Your task to perform on an android device: change alarm snooze length Image 0: 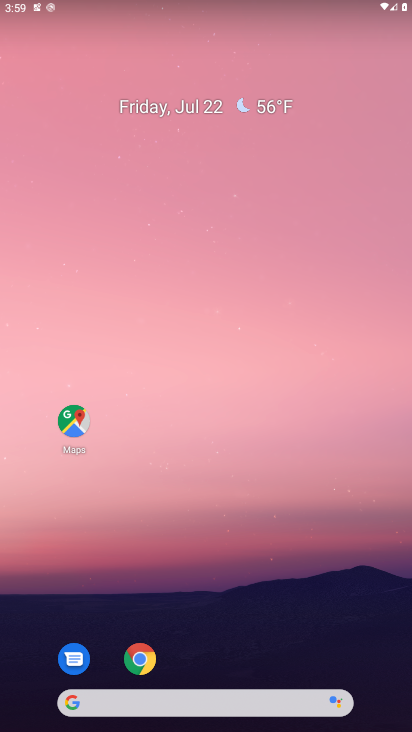
Step 0: drag from (217, 687) to (260, 254)
Your task to perform on an android device: change alarm snooze length Image 1: 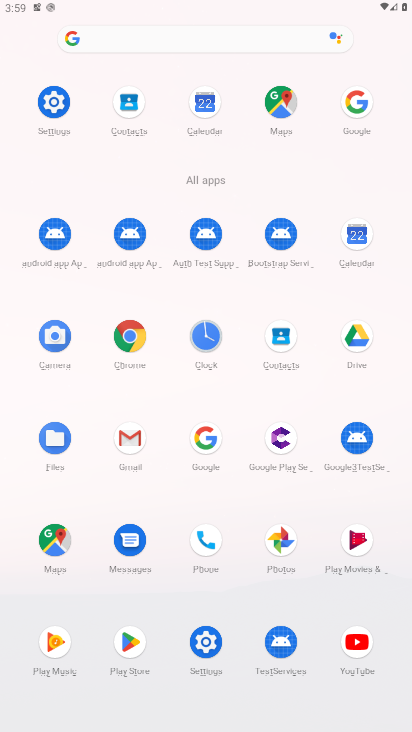
Step 1: click (210, 332)
Your task to perform on an android device: change alarm snooze length Image 2: 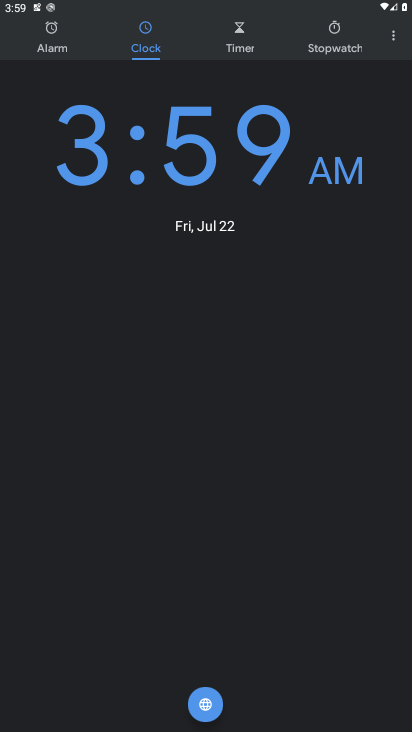
Step 2: click (394, 41)
Your task to perform on an android device: change alarm snooze length Image 3: 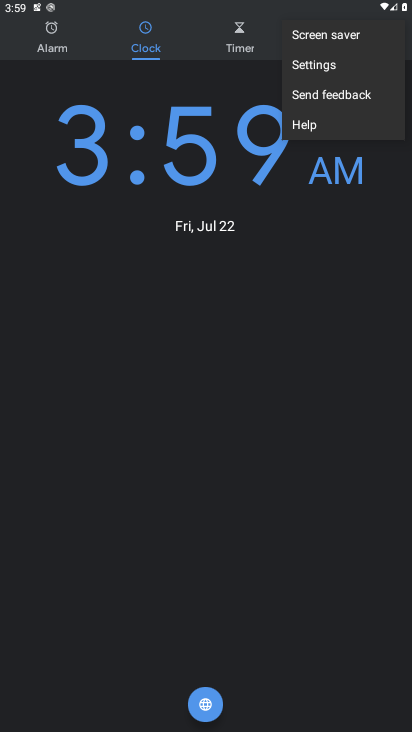
Step 3: click (312, 65)
Your task to perform on an android device: change alarm snooze length Image 4: 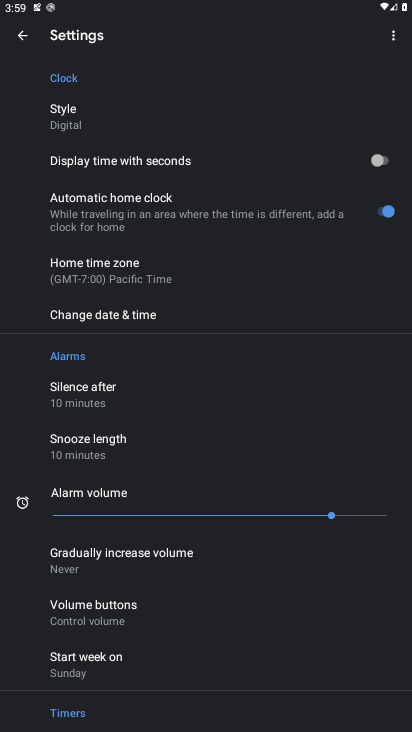
Step 4: click (93, 445)
Your task to perform on an android device: change alarm snooze length Image 5: 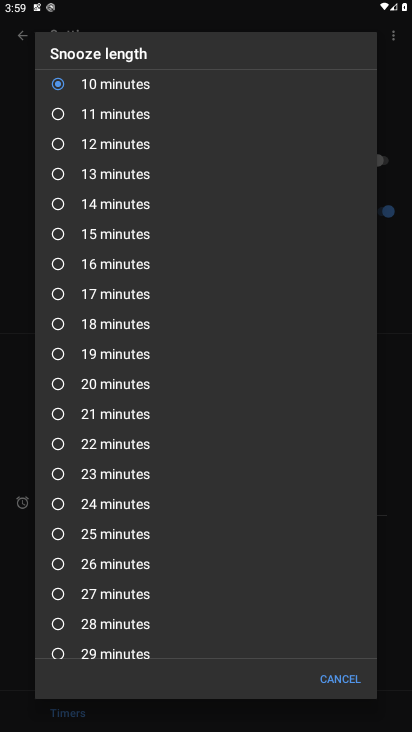
Step 5: click (129, 174)
Your task to perform on an android device: change alarm snooze length Image 6: 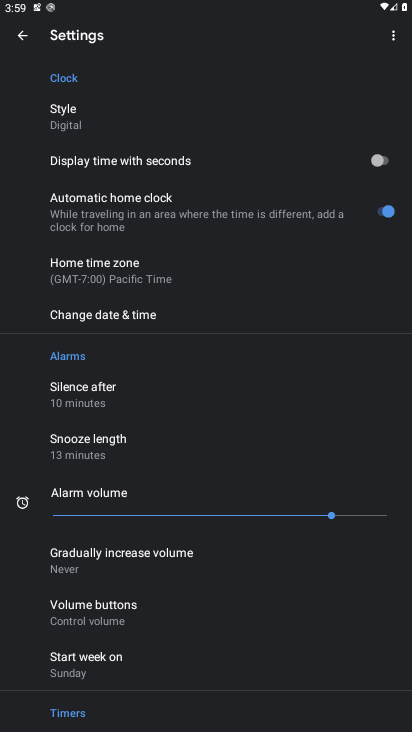
Step 6: task complete